Your task to perform on an android device: turn on data saver in the chrome app Image 0: 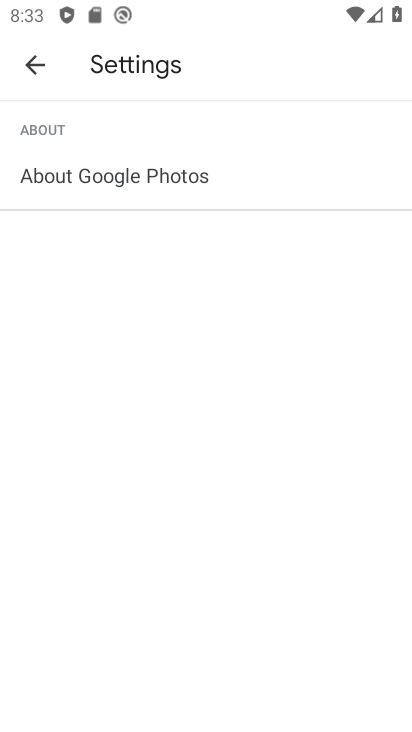
Step 0: press home button
Your task to perform on an android device: turn on data saver in the chrome app Image 1: 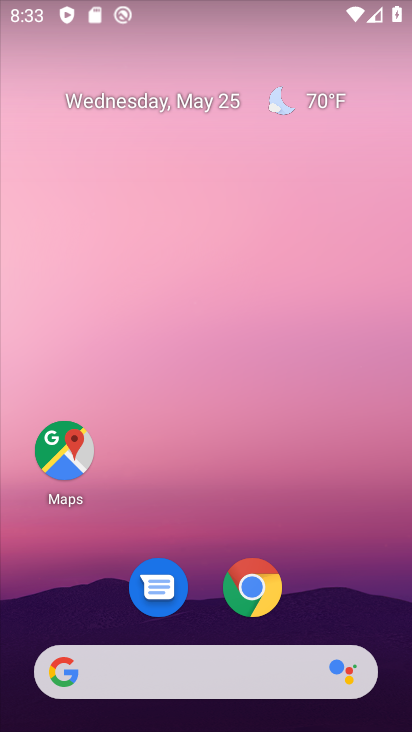
Step 1: click (247, 590)
Your task to perform on an android device: turn on data saver in the chrome app Image 2: 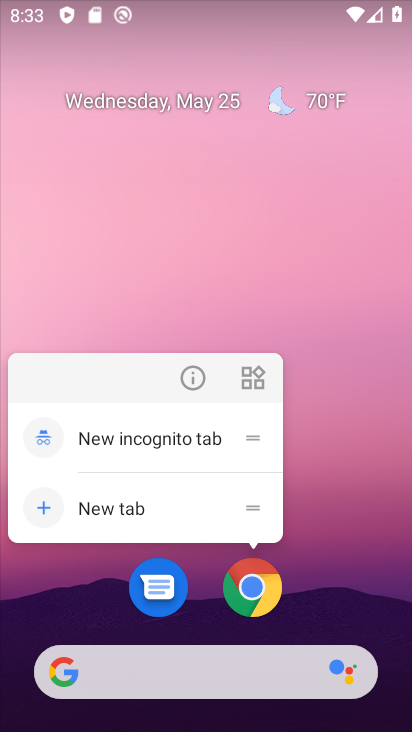
Step 2: click (256, 570)
Your task to perform on an android device: turn on data saver in the chrome app Image 3: 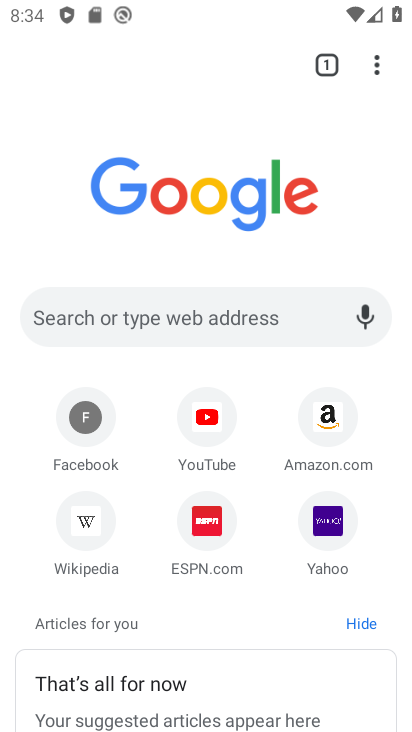
Step 3: click (384, 67)
Your task to perform on an android device: turn on data saver in the chrome app Image 4: 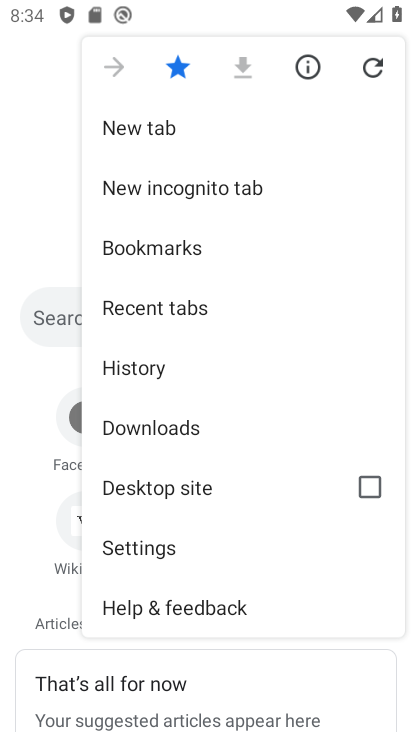
Step 4: click (154, 566)
Your task to perform on an android device: turn on data saver in the chrome app Image 5: 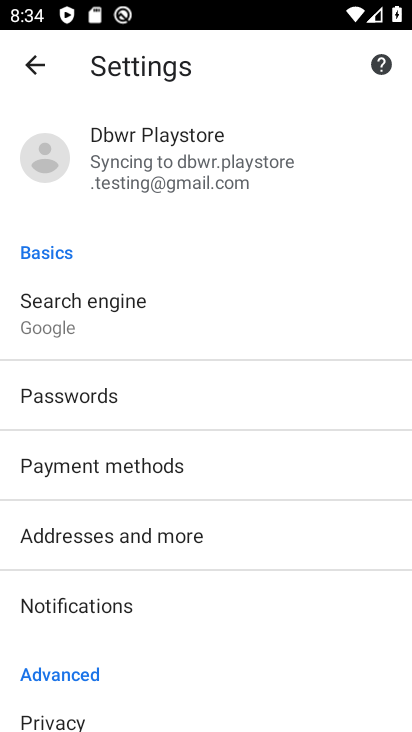
Step 5: drag from (138, 598) to (202, 263)
Your task to perform on an android device: turn on data saver in the chrome app Image 6: 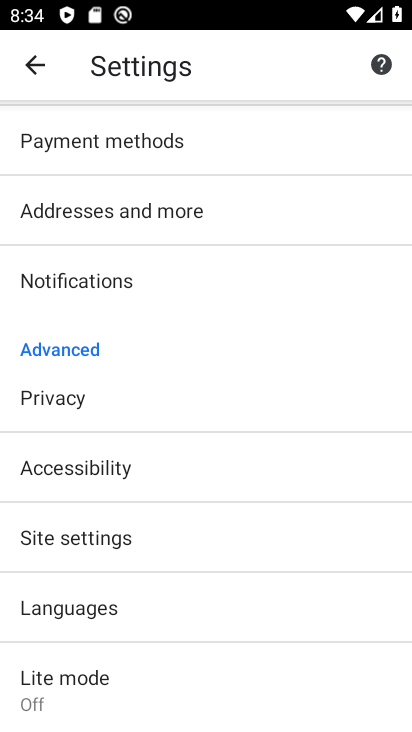
Step 6: drag from (129, 608) to (149, 413)
Your task to perform on an android device: turn on data saver in the chrome app Image 7: 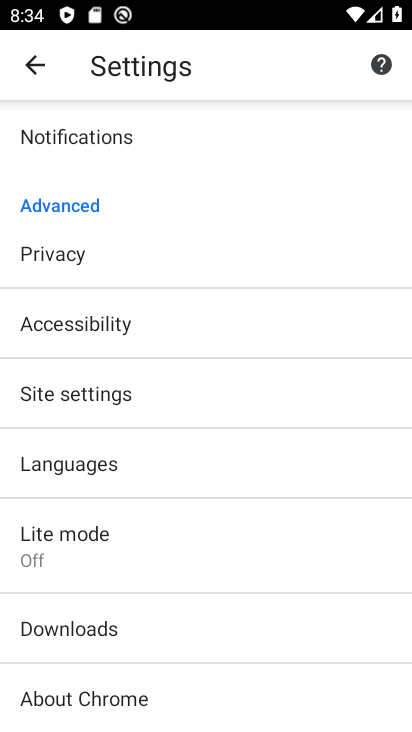
Step 7: click (96, 563)
Your task to perform on an android device: turn on data saver in the chrome app Image 8: 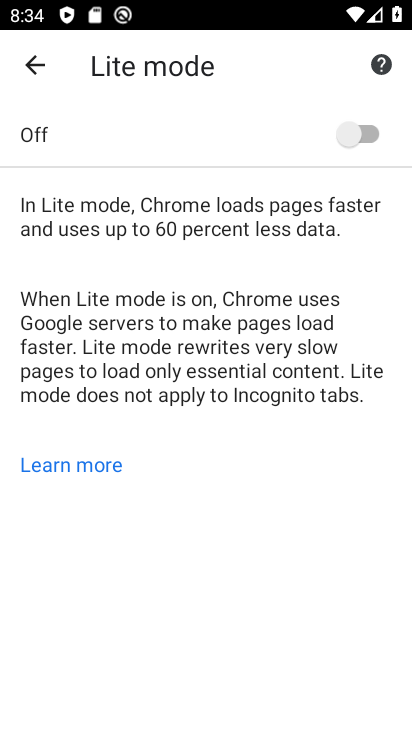
Step 8: click (369, 126)
Your task to perform on an android device: turn on data saver in the chrome app Image 9: 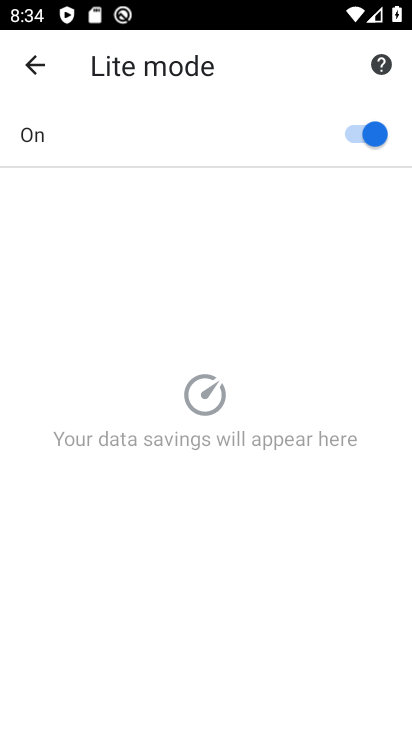
Step 9: task complete